Your task to perform on an android device: turn on priority inbox in the gmail app Image 0: 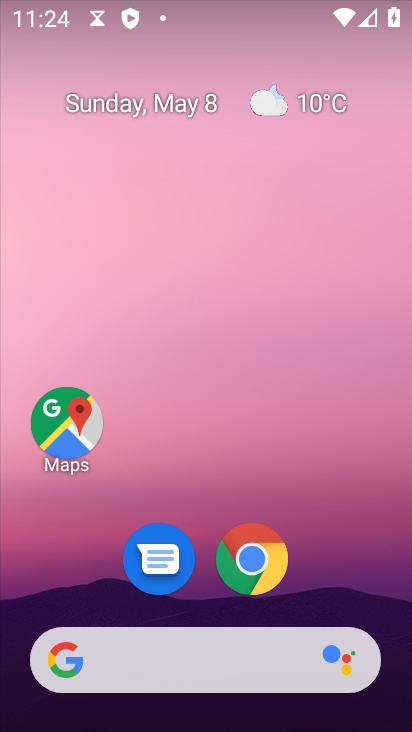
Step 0: drag from (233, 601) to (148, 7)
Your task to perform on an android device: turn on priority inbox in the gmail app Image 1: 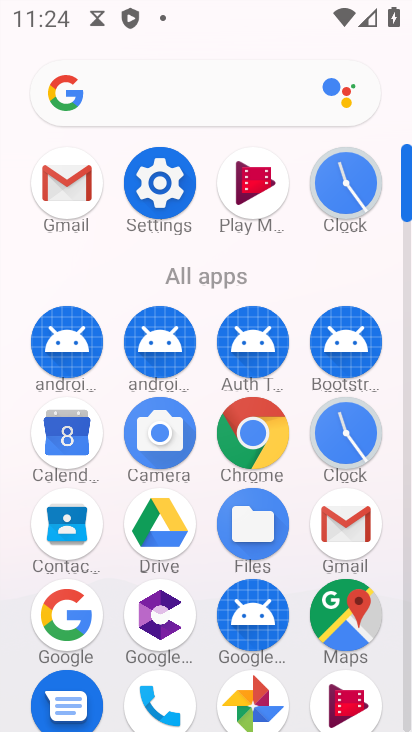
Step 1: click (351, 511)
Your task to perform on an android device: turn on priority inbox in the gmail app Image 2: 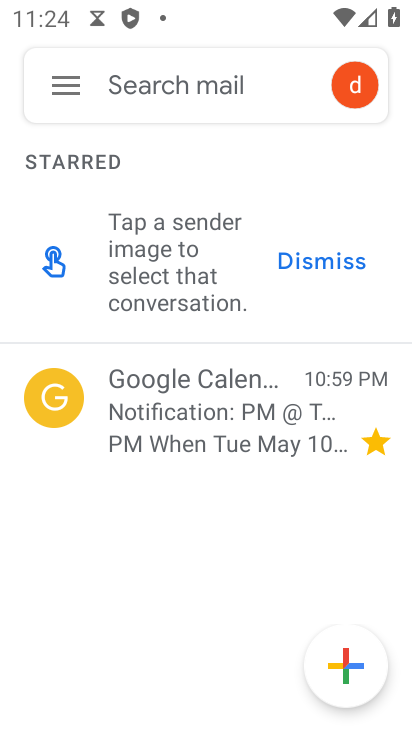
Step 2: click (64, 88)
Your task to perform on an android device: turn on priority inbox in the gmail app Image 3: 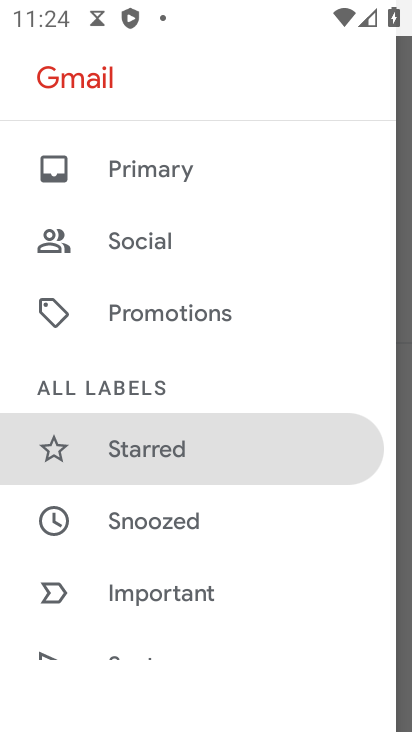
Step 3: drag from (178, 524) to (208, 138)
Your task to perform on an android device: turn on priority inbox in the gmail app Image 4: 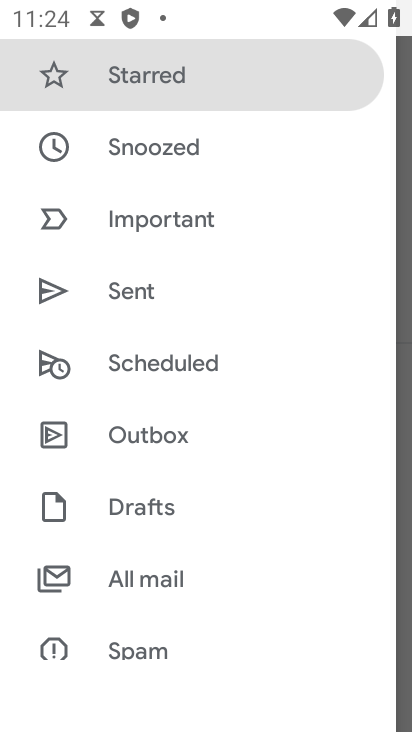
Step 4: drag from (173, 569) to (208, 282)
Your task to perform on an android device: turn on priority inbox in the gmail app Image 5: 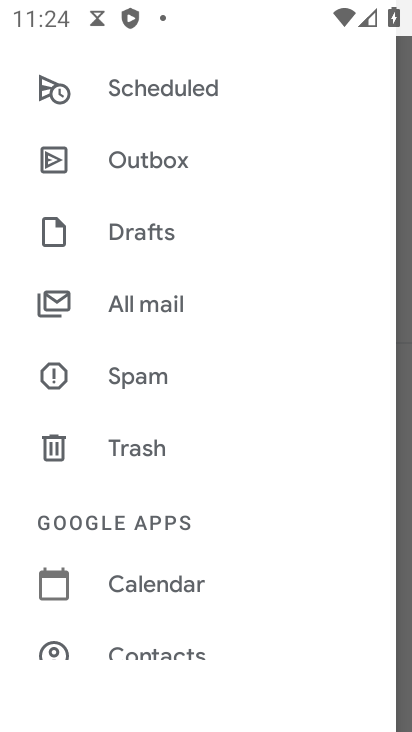
Step 5: drag from (212, 594) to (215, 235)
Your task to perform on an android device: turn on priority inbox in the gmail app Image 6: 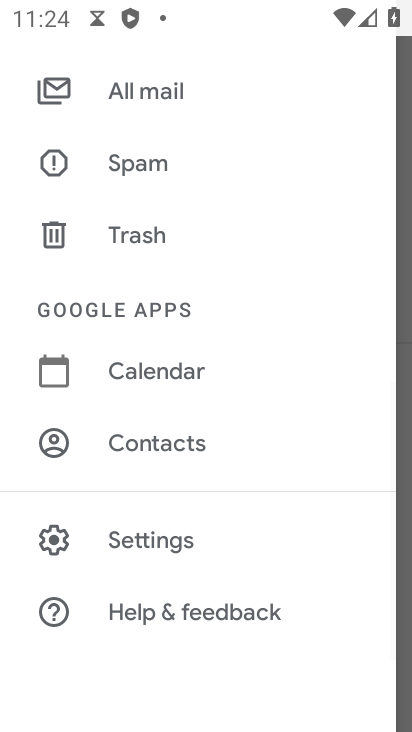
Step 6: drag from (229, 354) to (221, 253)
Your task to perform on an android device: turn on priority inbox in the gmail app Image 7: 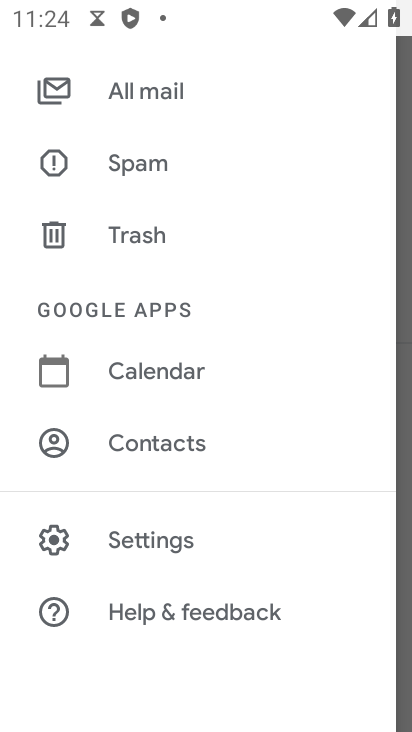
Step 7: drag from (224, 241) to (215, 64)
Your task to perform on an android device: turn on priority inbox in the gmail app Image 8: 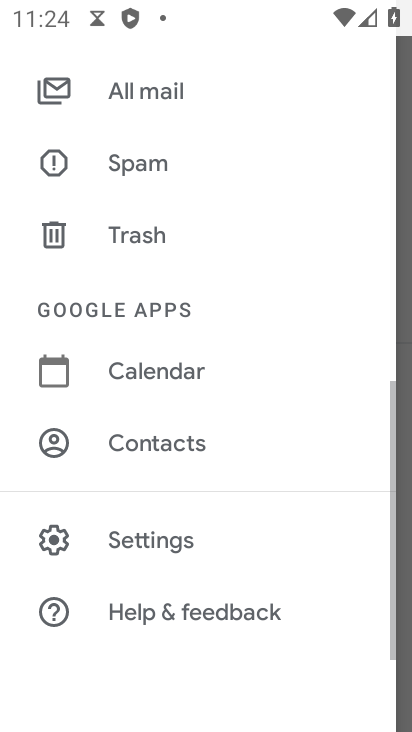
Step 8: click (201, 555)
Your task to perform on an android device: turn on priority inbox in the gmail app Image 9: 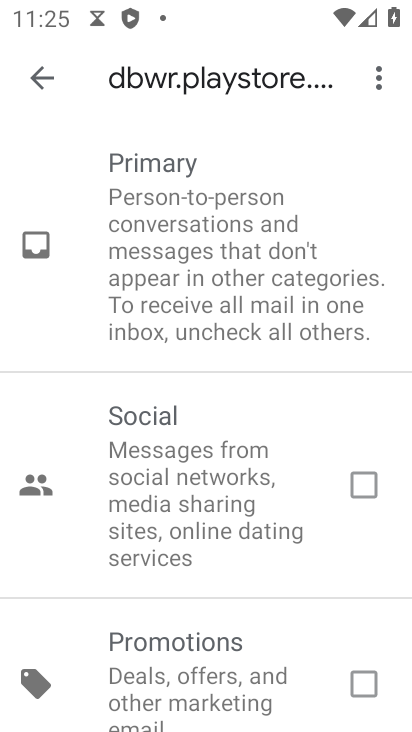
Step 9: click (39, 77)
Your task to perform on an android device: turn on priority inbox in the gmail app Image 10: 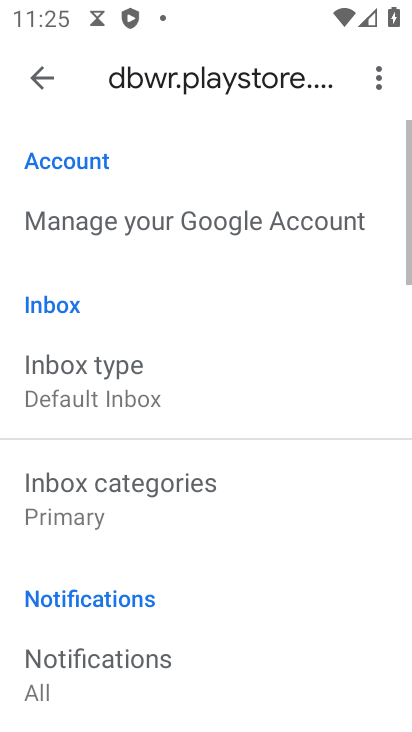
Step 10: click (188, 375)
Your task to perform on an android device: turn on priority inbox in the gmail app Image 11: 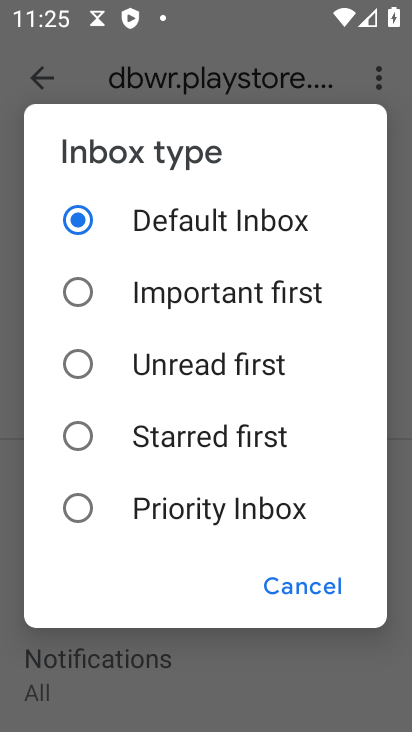
Step 11: click (156, 504)
Your task to perform on an android device: turn on priority inbox in the gmail app Image 12: 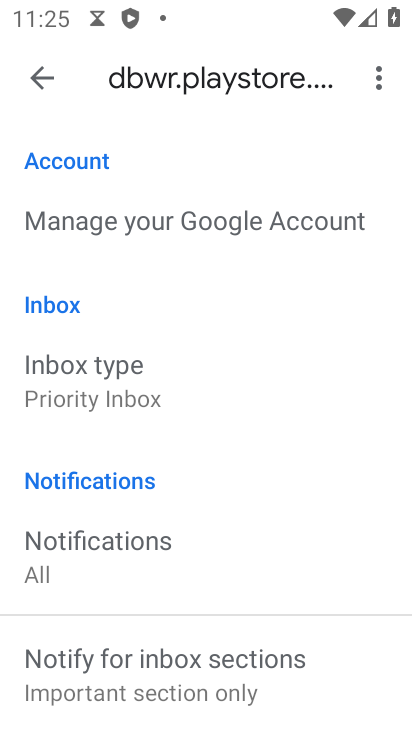
Step 12: task complete